Your task to perform on an android device: Play the last video I watched on Youtube Image 0: 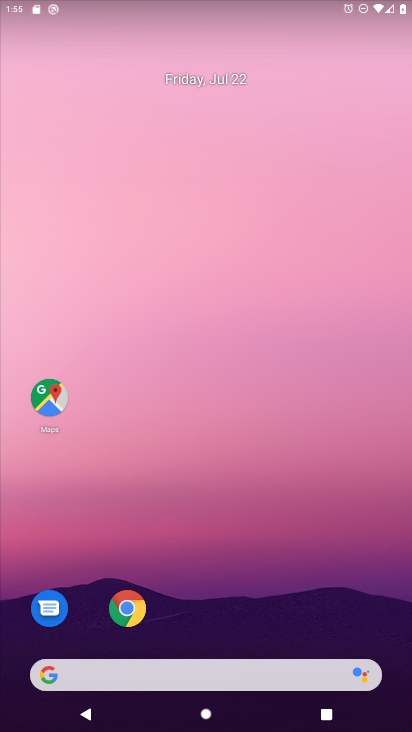
Step 0: drag from (342, 609) to (173, 76)
Your task to perform on an android device: Play the last video I watched on Youtube Image 1: 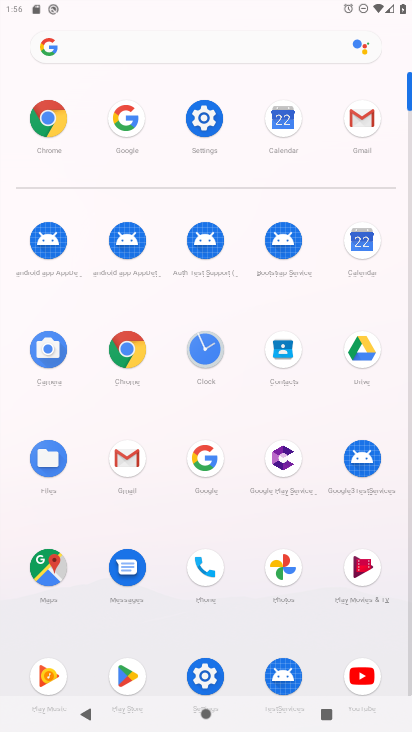
Step 1: click (358, 667)
Your task to perform on an android device: Play the last video I watched on Youtube Image 2: 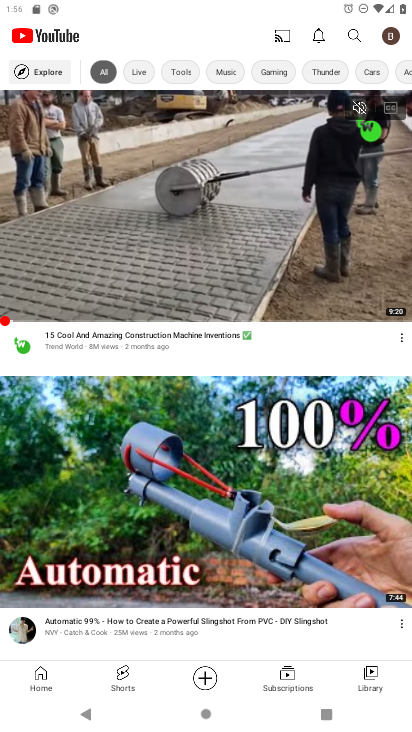
Step 2: task complete